Your task to perform on an android device: Find coffee shops on Maps Image 0: 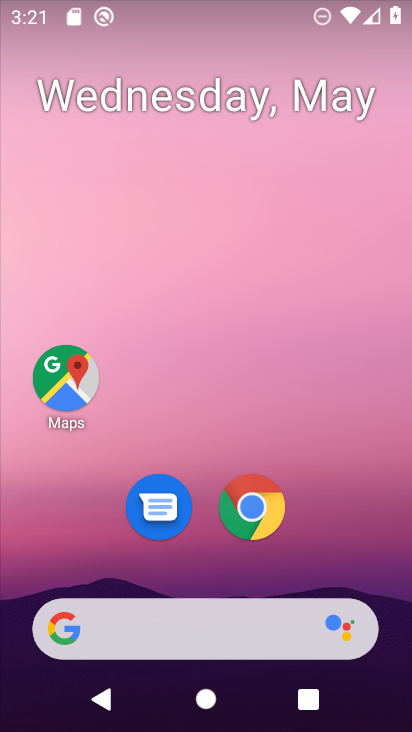
Step 0: click (55, 399)
Your task to perform on an android device: Find coffee shops on Maps Image 1: 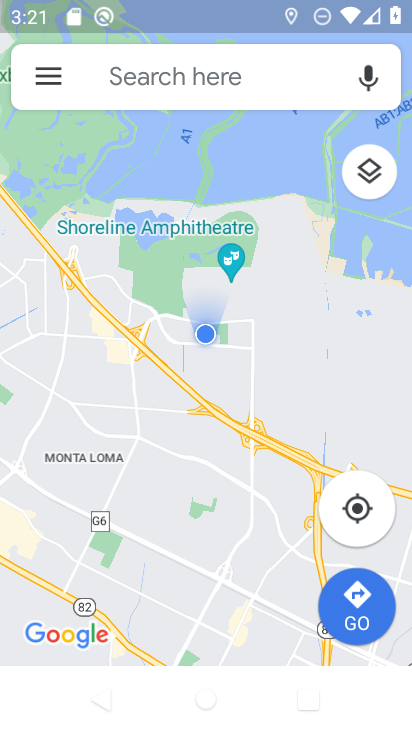
Step 1: click (142, 79)
Your task to perform on an android device: Find coffee shops on Maps Image 2: 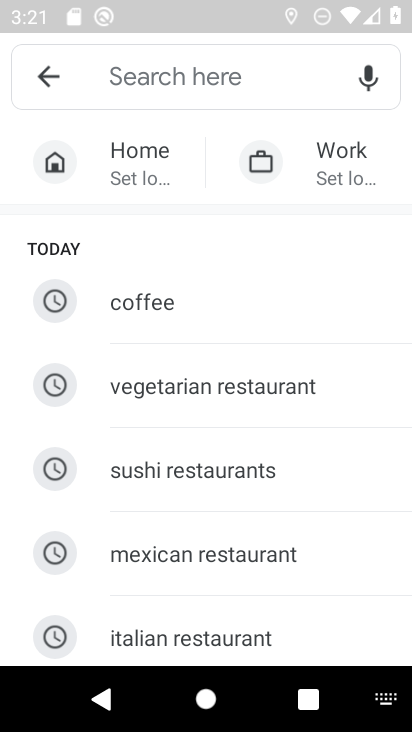
Step 2: click (154, 291)
Your task to perform on an android device: Find coffee shops on Maps Image 3: 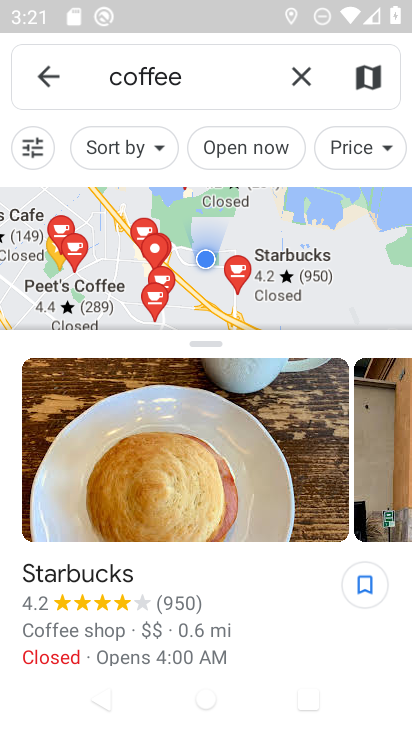
Step 3: task complete